Your task to perform on an android device: turn pop-ups off in chrome Image 0: 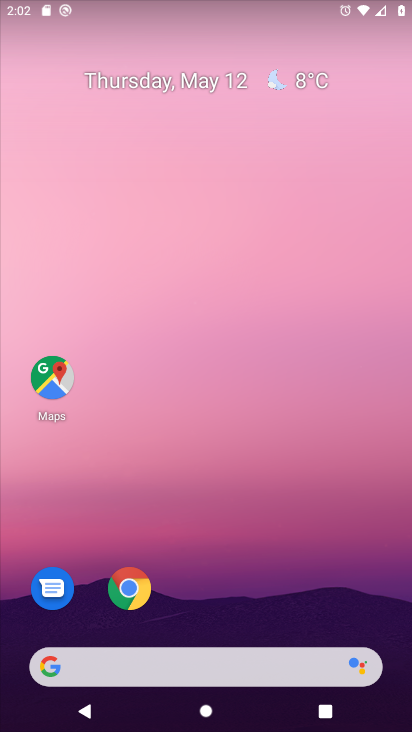
Step 0: drag from (234, 543) to (18, 188)
Your task to perform on an android device: turn pop-ups off in chrome Image 1: 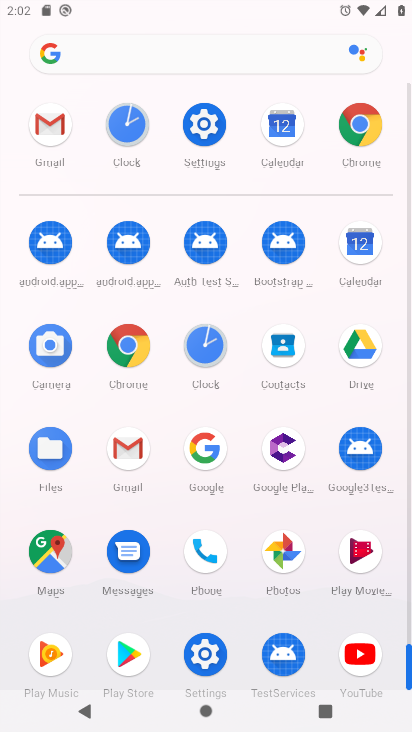
Step 1: click (384, 98)
Your task to perform on an android device: turn pop-ups off in chrome Image 2: 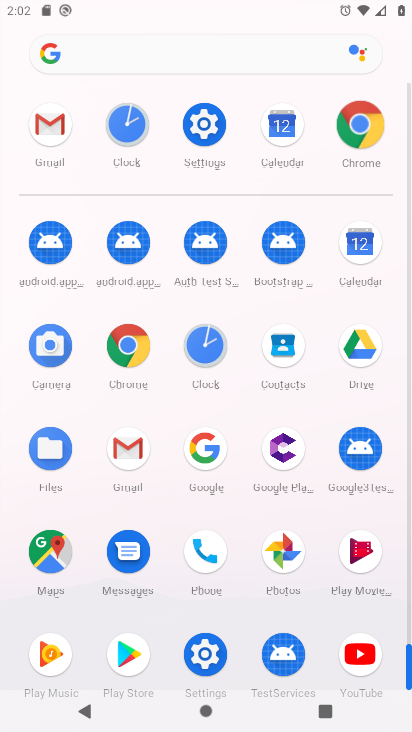
Step 2: click (368, 118)
Your task to perform on an android device: turn pop-ups off in chrome Image 3: 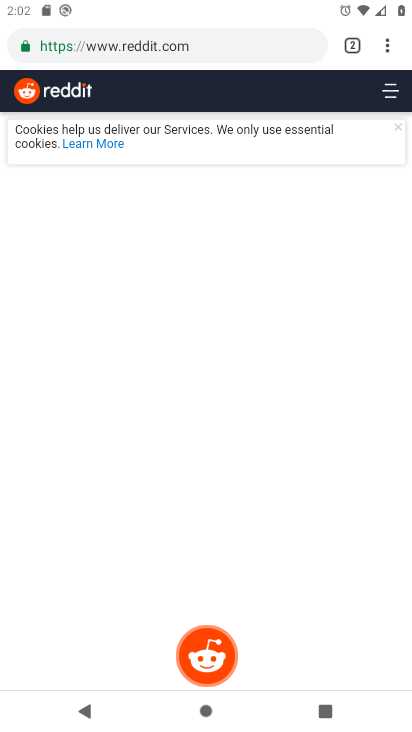
Step 3: drag from (387, 41) to (229, 566)
Your task to perform on an android device: turn pop-ups off in chrome Image 4: 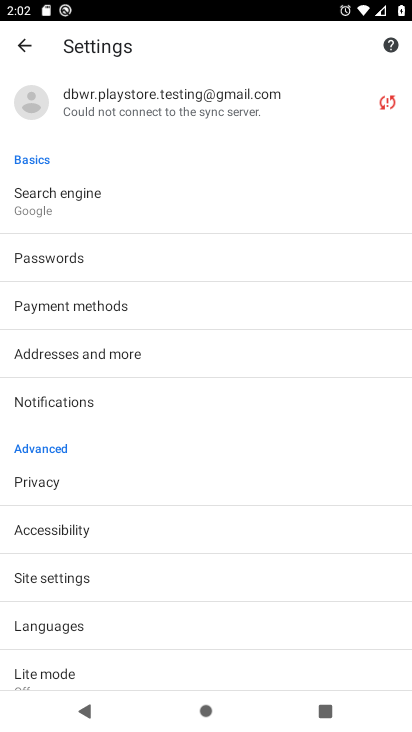
Step 4: drag from (215, 582) to (295, 107)
Your task to perform on an android device: turn pop-ups off in chrome Image 5: 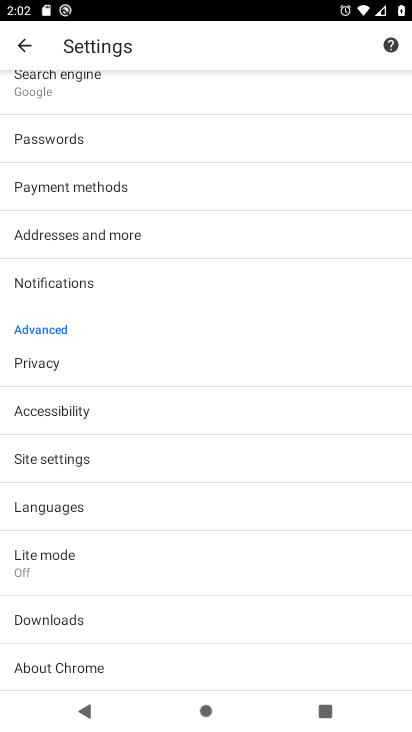
Step 5: click (61, 441)
Your task to perform on an android device: turn pop-ups off in chrome Image 6: 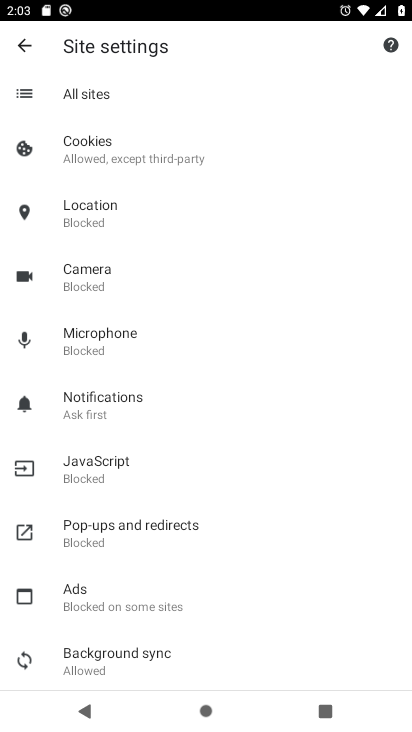
Step 6: click (145, 535)
Your task to perform on an android device: turn pop-ups off in chrome Image 7: 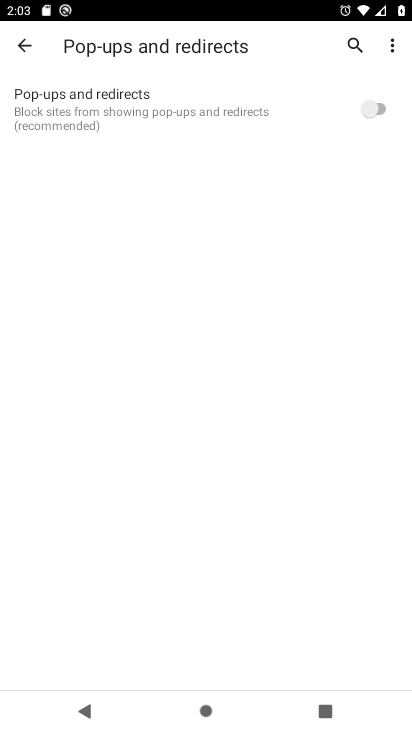
Step 7: task complete